Your task to perform on an android device: turn on bluetooth scan Image 0: 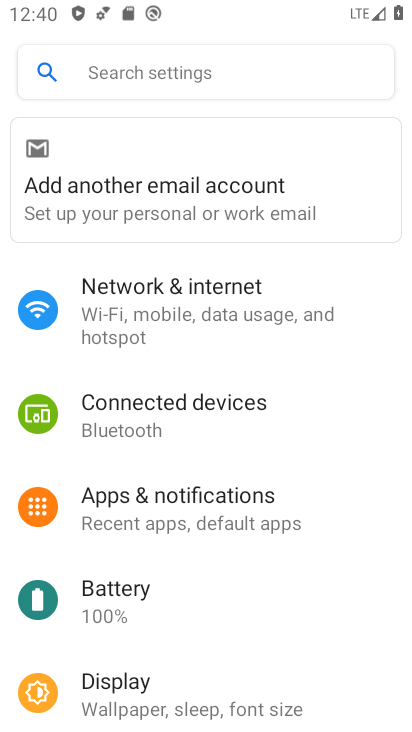
Step 0: click (394, 676)
Your task to perform on an android device: turn on bluetooth scan Image 1: 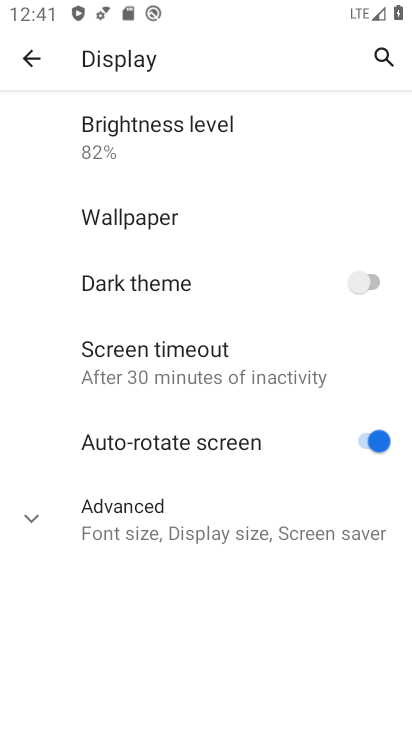
Step 1: press home button
Your task to perform on an android device: turn on bluetooth scan Image 2: 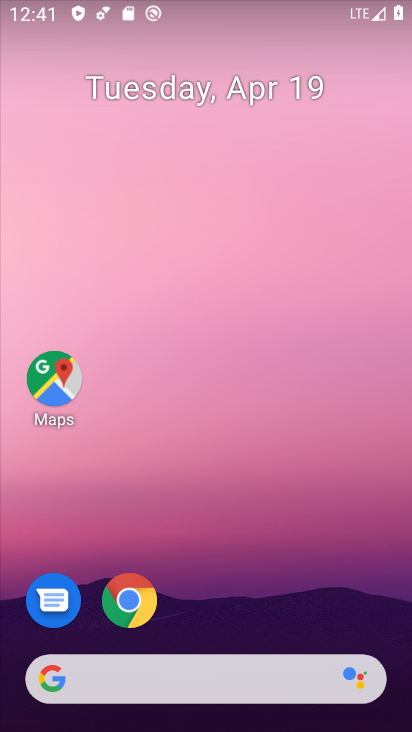
Step 2: drag from (222, 645) to (188, 1)
Your task to perform on an android device: turn on bluetooth scan Image 3: 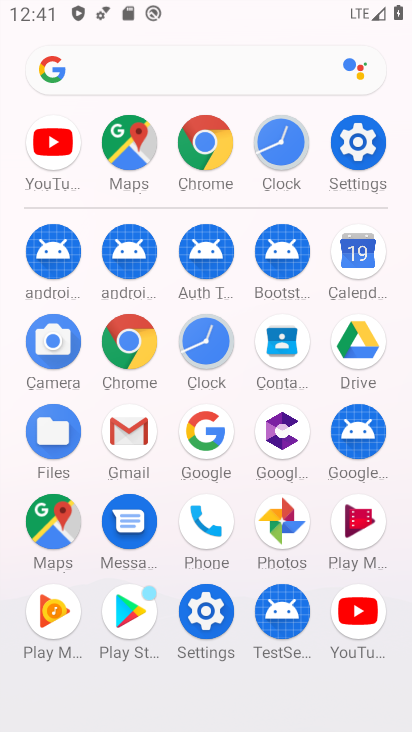
Step 3: click (362, 159)
Your task to perform on an android device: turn on bluetooth scan Image 4: 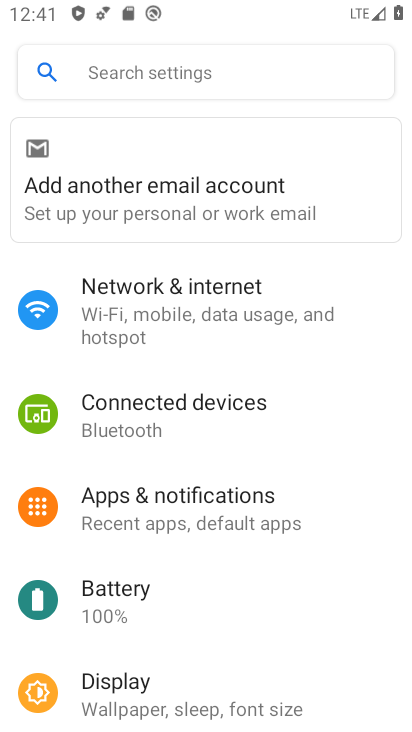
Step 4: drag from (271, 655) to (233, 285)
Your task to perform on an android device: turn on bluetooth scan Image 5: 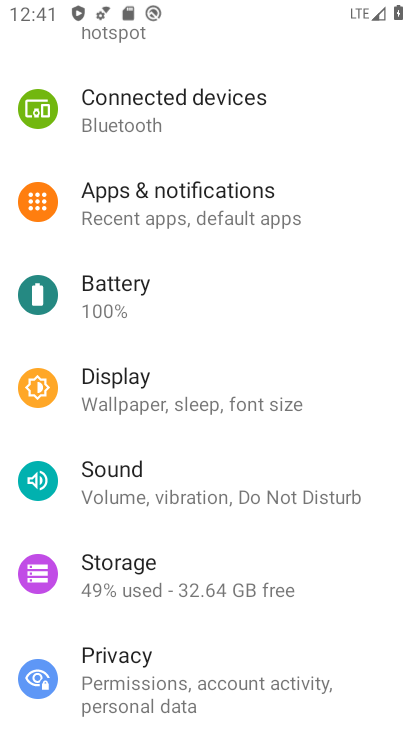
Step 5: drag from (169, 673) to (112, 281)
Your task to perform on an android device: turn on bluetooth scan Image 6: 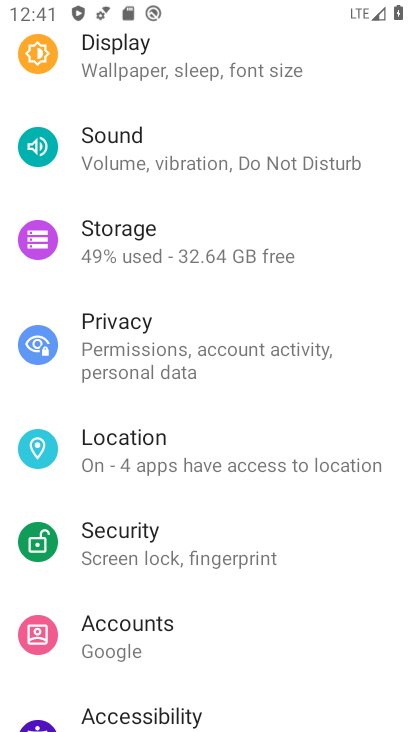
Step 6: click (158, 444)
Your task to perform on an android device: turn on bluetooth scan Image 7: 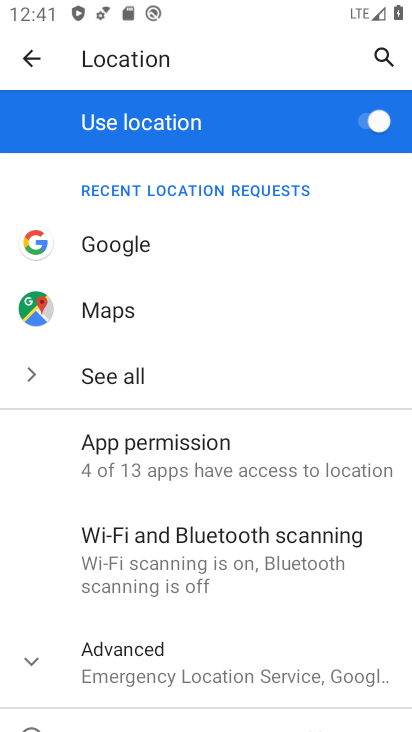
Step 7: drag from (178, 592) to (173, 265)
Your task to perform on an android device: turn on bluetooth scan Image 8: 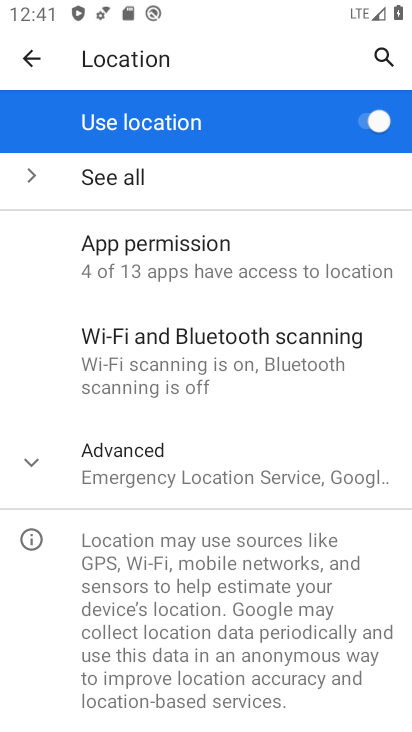
Step 8: click (212, 334)
Your task to perform on an android device: turn on bluetooth scan Image 9: 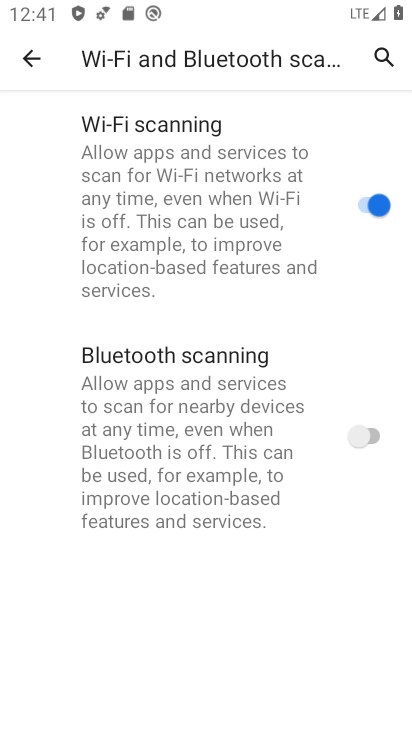
Step 9: click (354, 429)
Your task to perform on an android device: turn on bluetooth scan Image 10: 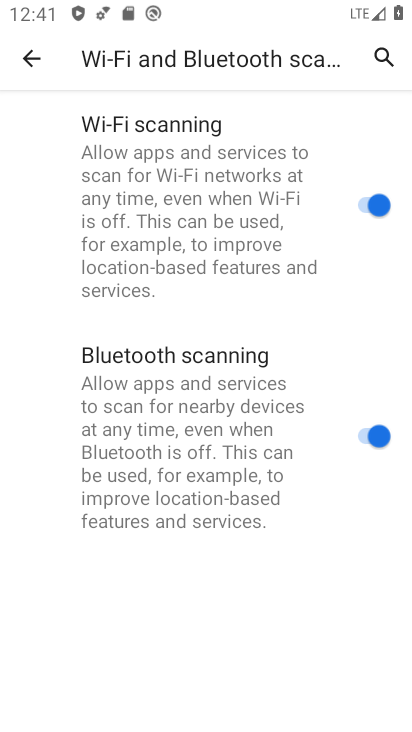
Step 10: task complete